Your task to perform on an android device: Search for Italian restaurants on Maps Image 0: 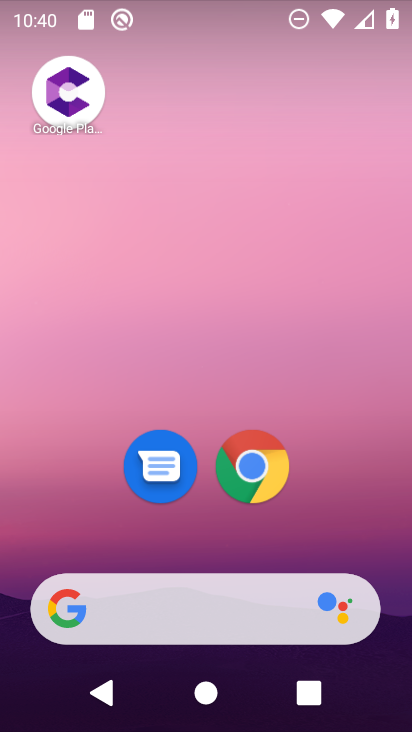
Step 0: drag from (210, 532) to (239, 154)
Your task to perform on an android device: Search for Italian restaurants on Maps Image 1: 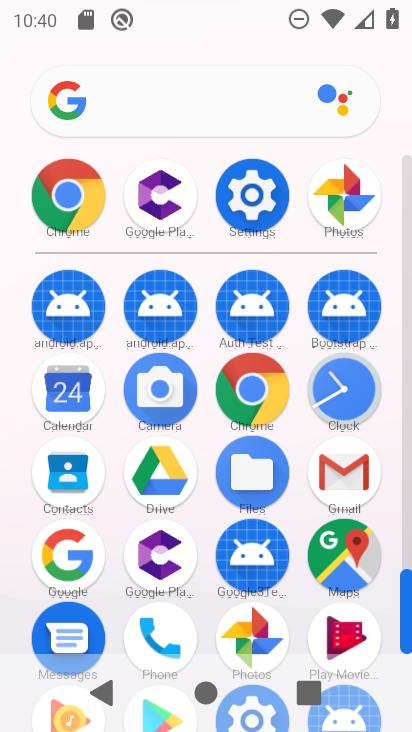
Step 1: click (333, 457)
Your task to perform on an android device: Search for Italian restaurants on Maps Image 2: 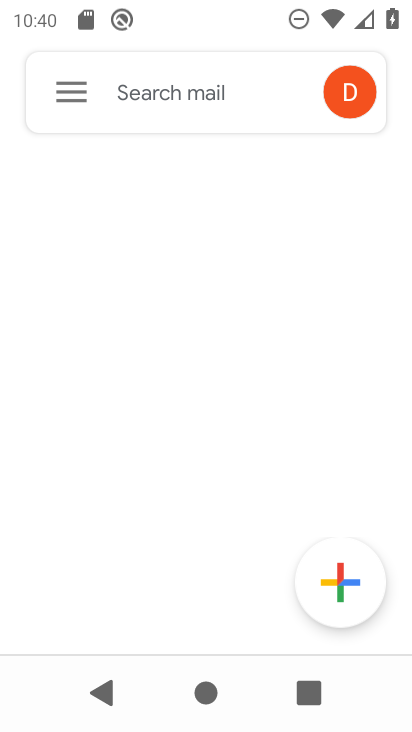
Step 2: press home button
Your task to perform on an android device: Search for Italian restaurants on Maps Image 3: 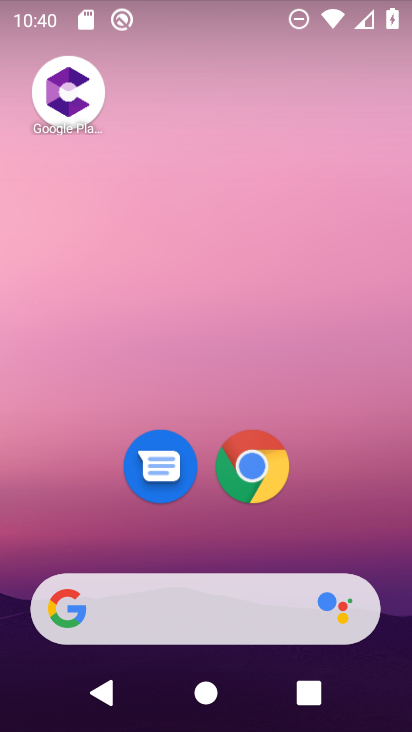
Step 3: drag from (221, 478) to (265, 1)
Your task to perform on an android device: Search for Italian restaurants on Maps Image 4: 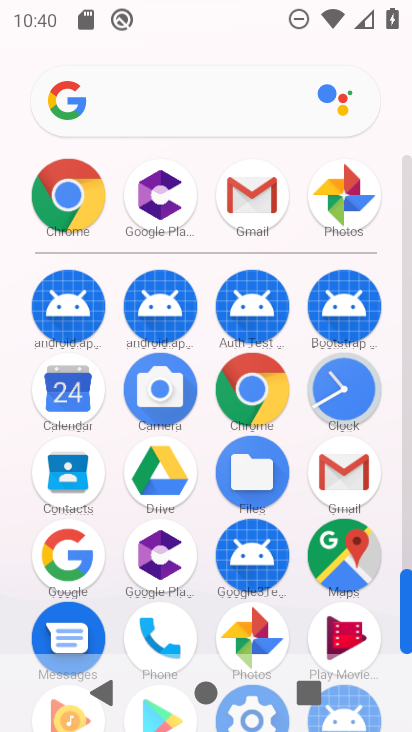
Step 4: click (356, 565)
Your task to perform on an android device: Search for Italian restaurants on Maps Image 5: 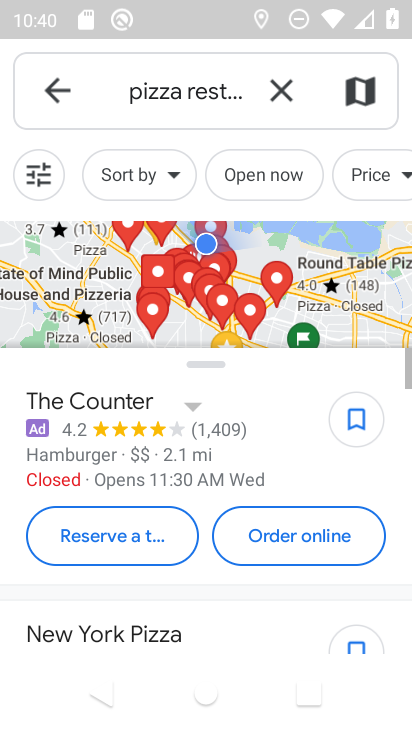
Step 5: click (145, 87)
Your task to perform on an android device: Search for Italian restaurants on Maps Image 6: 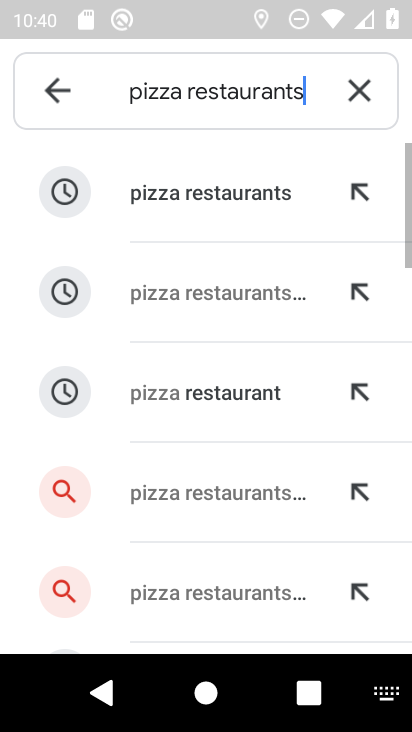
Step 6: click (155, 94)
Your task to perform on an android device: Search for Italian restaurants on Maps Image 7: 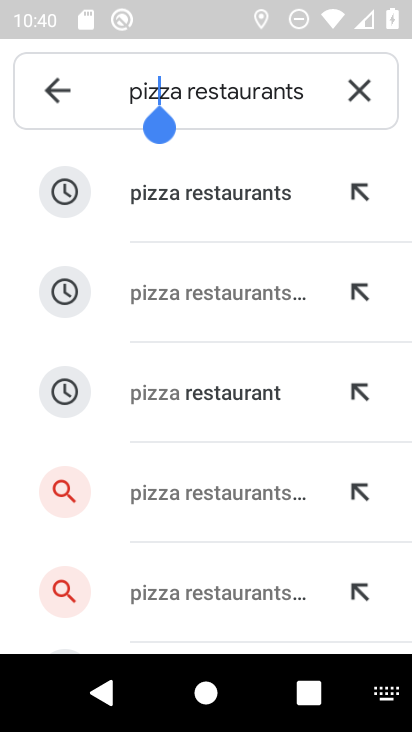
Step 7: click (155, 94)
Your task to perform on an android device: Search for Italian restaurants on Maps Image 8: 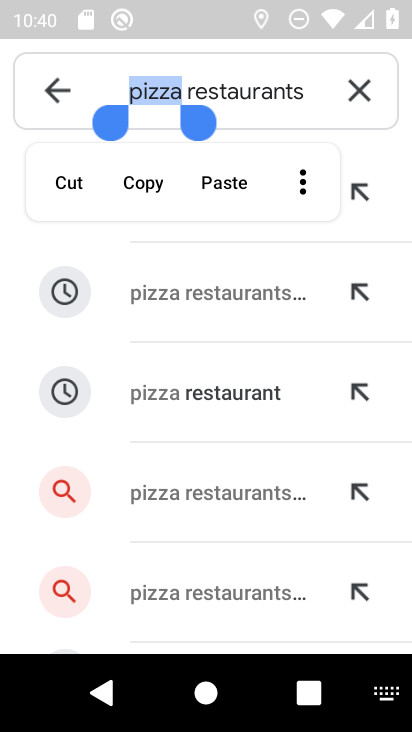
Step 8: type "iitaliian"
Your task to perform on an android device: Search for Italian restaurants on Maps Image 9: 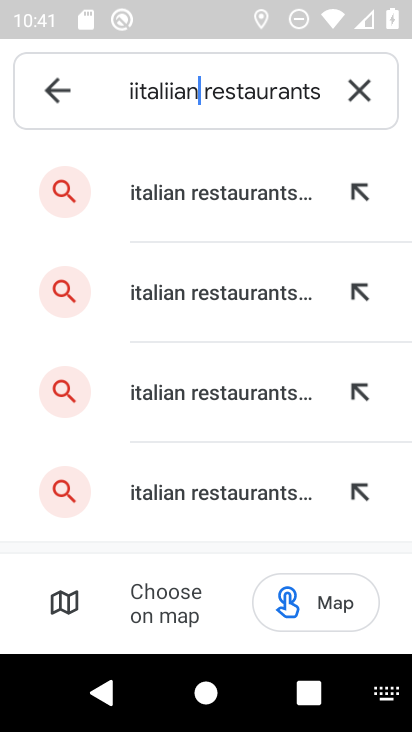
Step 9: click (213, 193)
Your task to perform on an android device: Search for Italian restaurants on Maps Image 10: 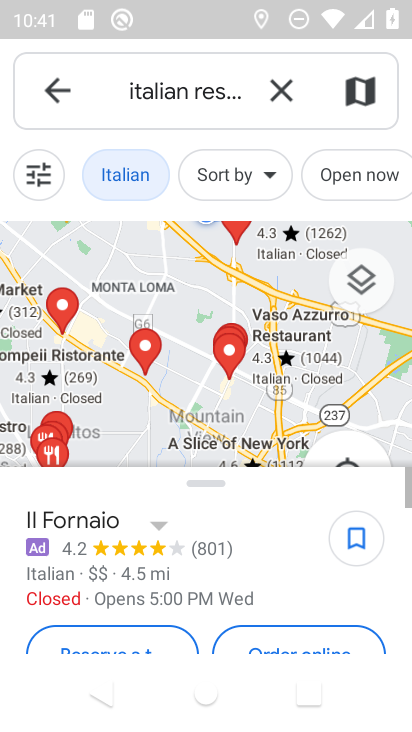
Step 10: task complete